Your task to perform on an android device: Go to accessibility settings Image 0: 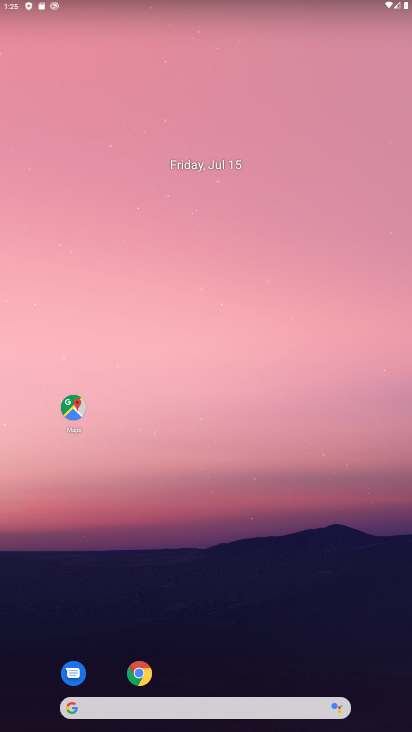
Step 0: drag from (246, 633) to (392, 0)
Your task to perform on an android device: Go to accessibility settings Image 1: 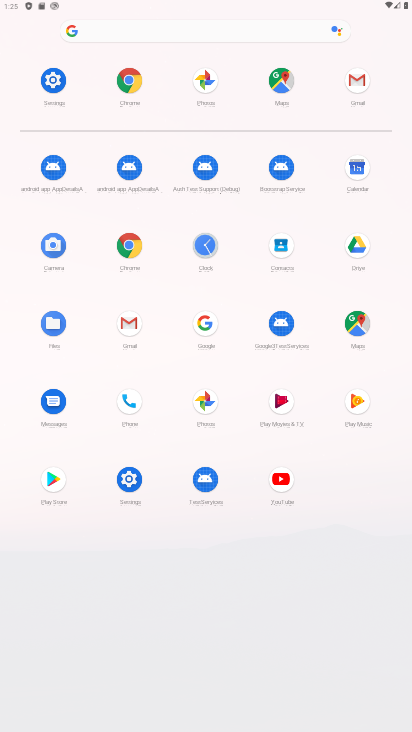
Step 1: click (42, 76)
Your task to perform on an android device: Go to accessibility settings Image 2: 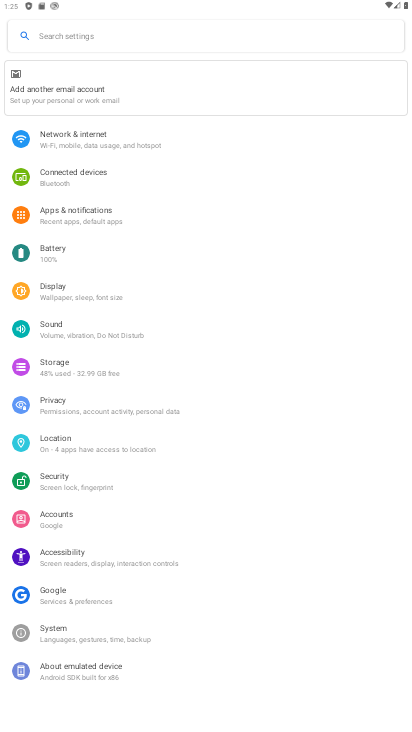
Step 2: click (79, 557)
Your task to perform on an android device: Go to accessibility settings Image 3: 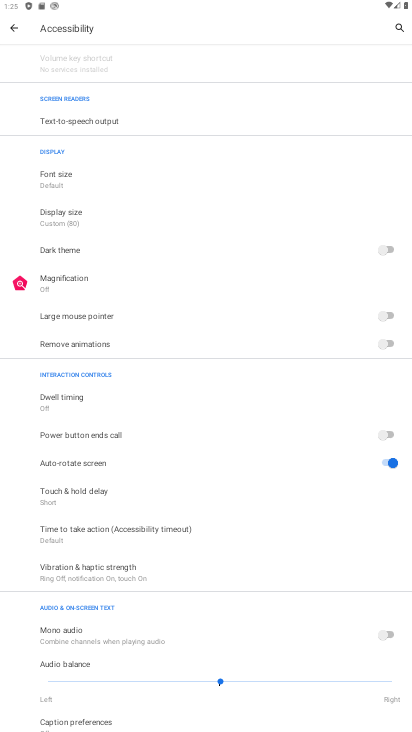
Step 3: task complete